Your task to perform on an android device: turn on priority inbox in the gmail app Image 0: 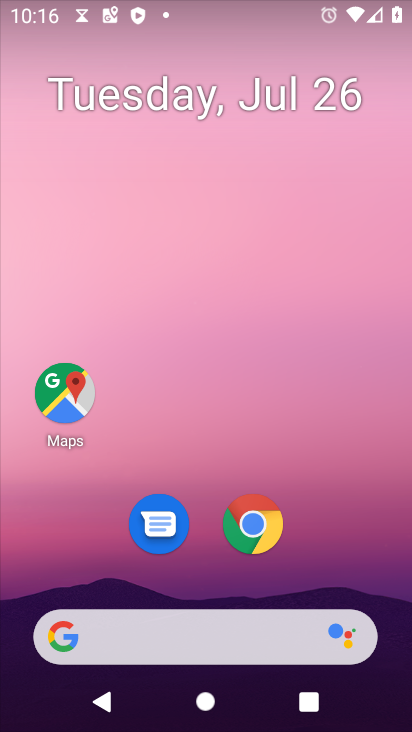
Step 0: press home button
Your task to perform on an android device: turn on priority inbox in the gmail app Image 1: 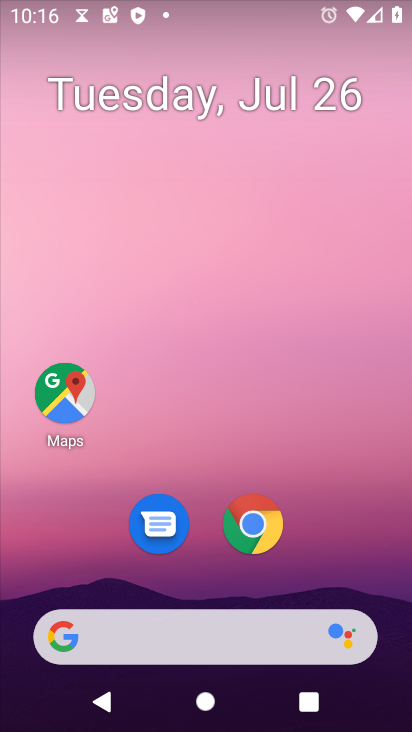
Step 1: click (408, 564)
Your task to perform on an android device: turn on priority inbox in the gmail app Image 2: 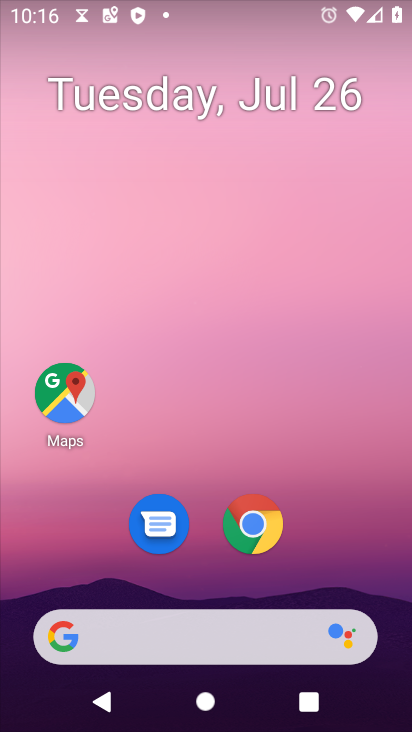
Step 2: drag from (174, 624) to (320, 119)
Your task to perform on an android device: turn on priority inbox in the gmail app Image 3: 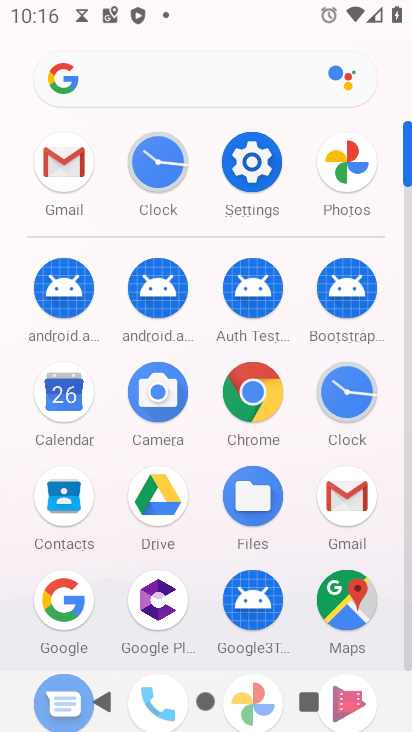
Step 3: click (63, 170)
Your task to perform on an android device: turn on priority inbox in the gmail app Image 4: 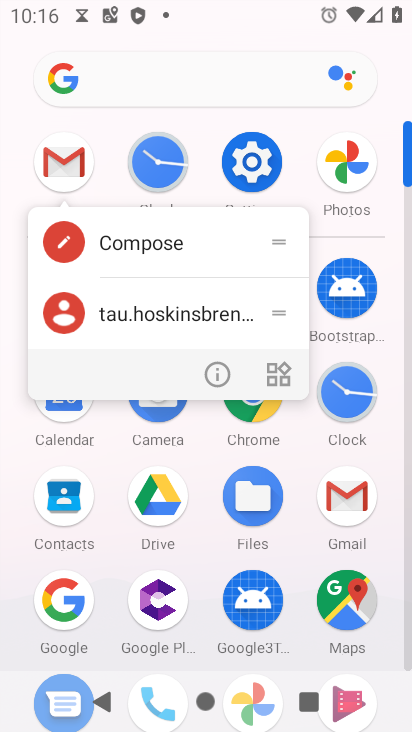
Step 4: click (70, 166)
Your task to perform on an android device: turn on priority inbox in the gmail app Image 5: 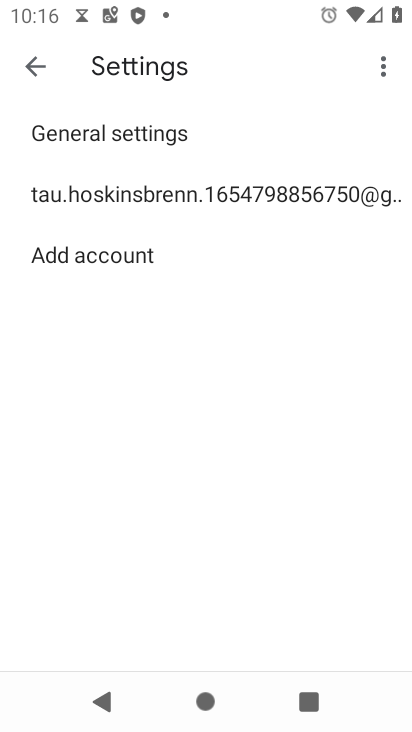
Step 5: click (115, 192)
Your task to perform on an android device: turn on priority inbox in the gmail app Image 6: 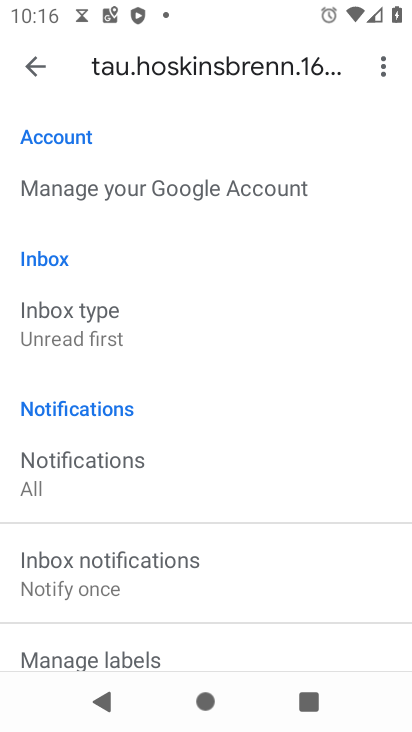
Step 6: click (102, 330)
Your task to perform on an android device: turn on priority inbox in the gmail app Image 7: 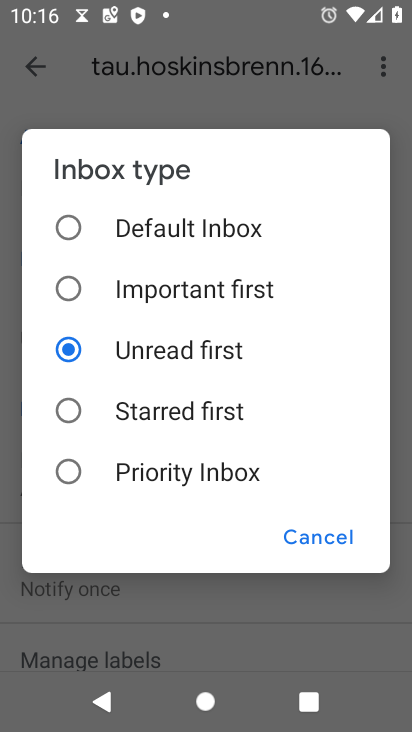
Step 7: click (61, 468)
Your task to perform on an android device: turn on priority inbox in the gmail app Image 8: 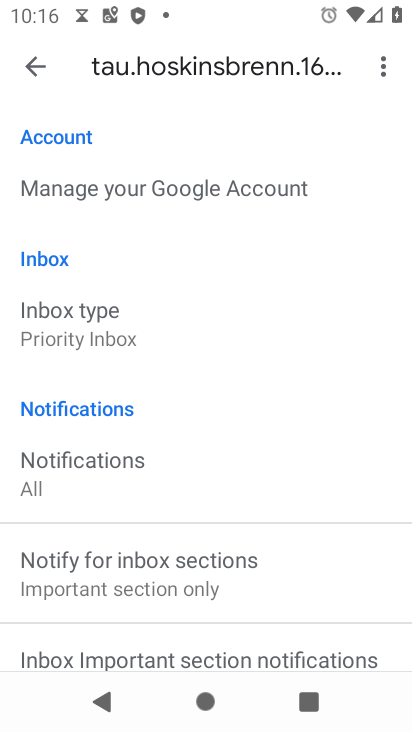
Step 8: task complete